Your task to perform on an android device: refresh tabs in the chrome app Image 0: 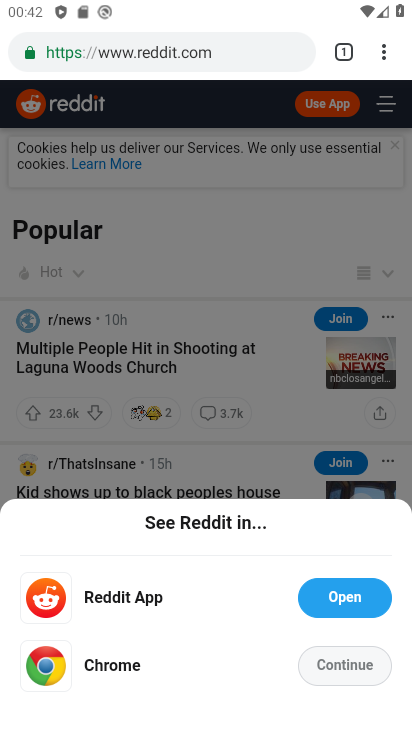
Step 0: press home button
Your task to perform on an android device: refresh tabs in the chrome app Image 1: 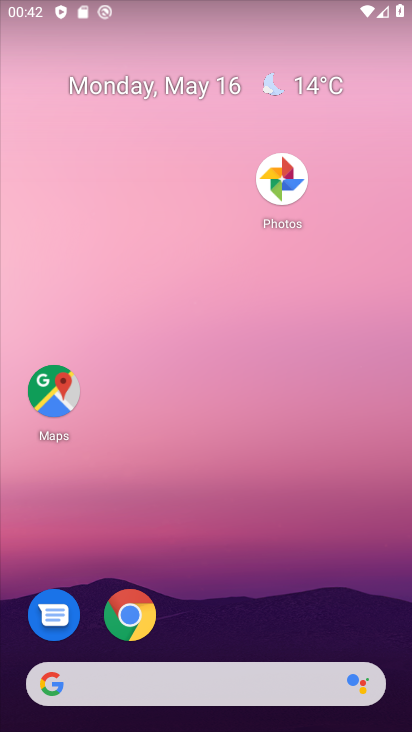
Step 1: drag from (340, 605) to (340, 138)
Your task to perform on an android device: refresh tabs in the chrome app Image 2: 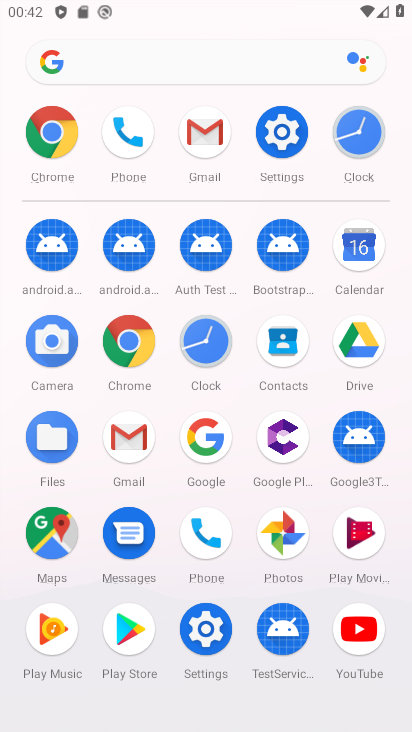
Step 2: click (141, 346)
Your task to perform on an android device: refresh tabs in the chrome app Image 3: 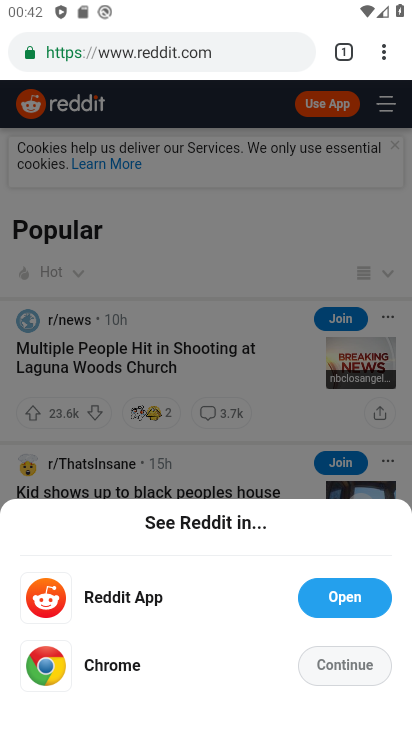
Step 3: press home button
Your task to perform on an android device: refresh tabs in the chrome app Image 4: 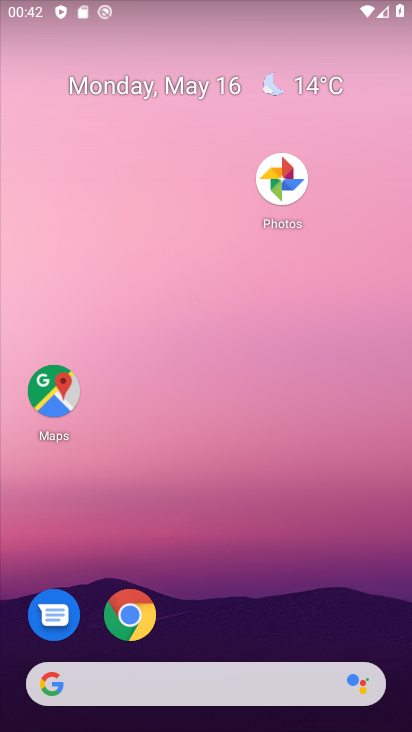
Step 4: drag from (353, 600) to (354, 135)
Your task to perform on an android device: refresh tabs in the chrome app Image 5: 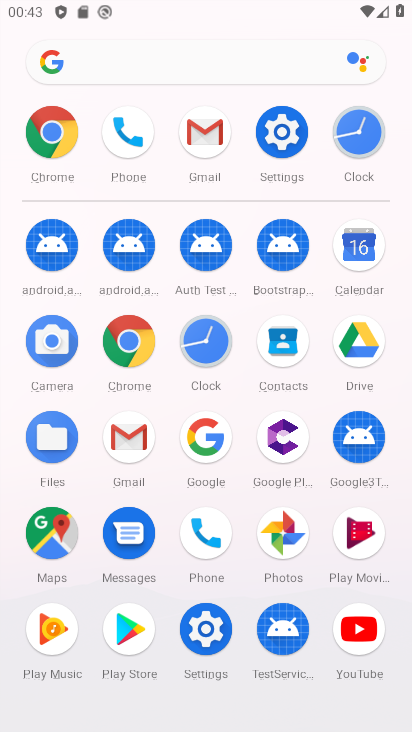
Step 5: click (139, 326)
Your task to perform on an android device: refresh tabs in the chrome app Image 6: 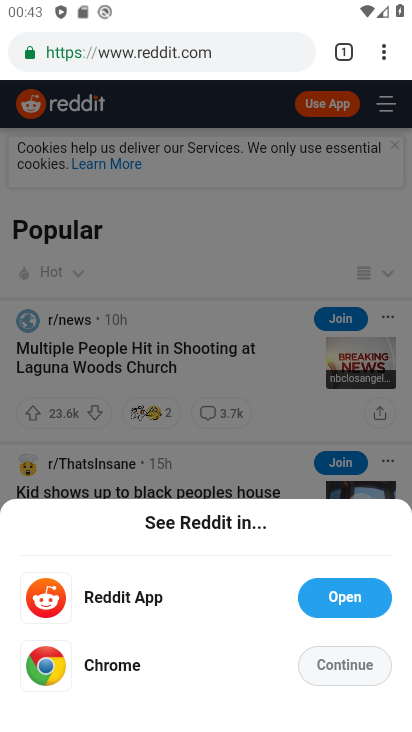
Step 6: click (385, 51)
Your task to perform on an android device: refresh tabs in the chrome app Image 7: 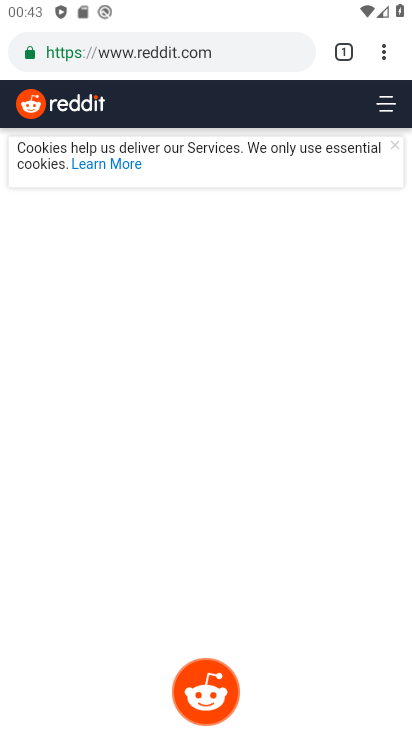
Step 7: task complete